Your task to perform on an android device: Do I have any events tomorrow? Image 0: 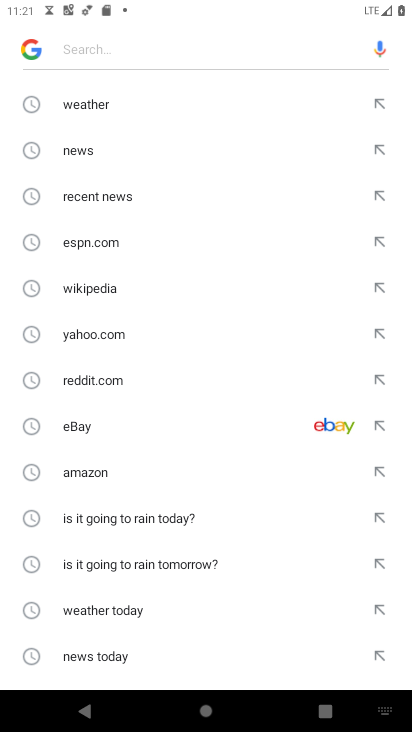
Step 0: press home button
Your task to perform on an android device: Do I have any events tomorrow? Image 1: 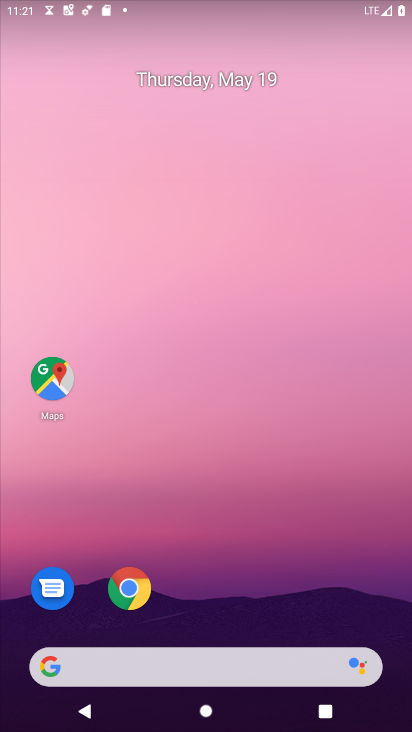
Step 1: drag from (275, 574) to (153, 26)
Your task to perform on an android device: Do I have any events tomorrow? Image 2: 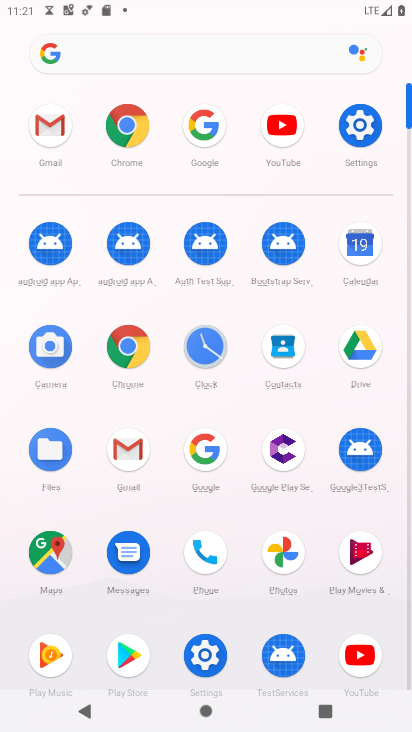
Step 2: click (354, 253)
Your task to perform on an android device: Do I have any events tomorrow? Image 3: 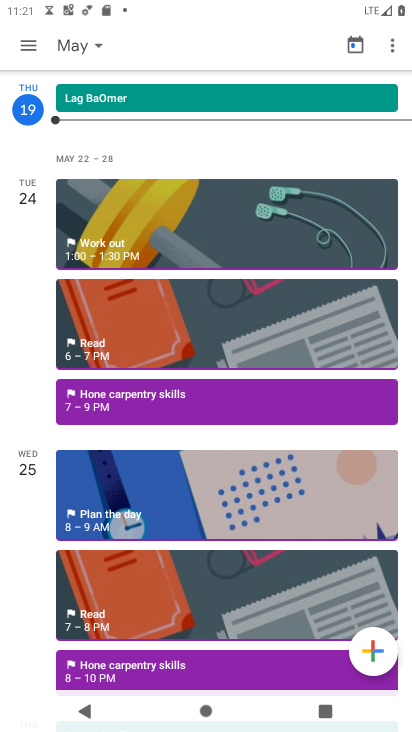
Step 3: click (25, 47)
Your task to perform on an android device: Do I have any events tomorrow? Image 4: 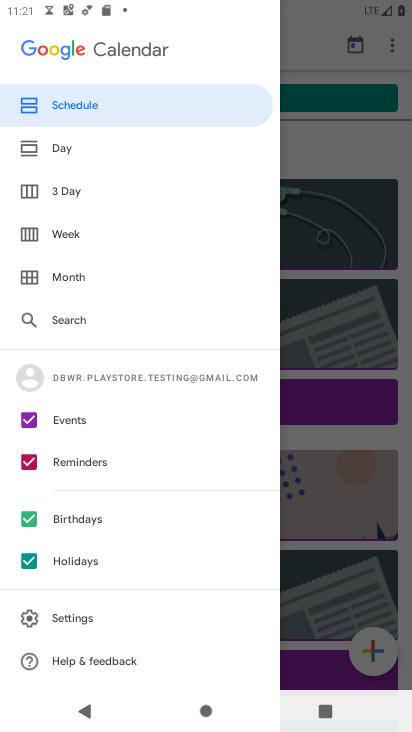
Step 4: click (69, 233)
Your task to perform on an android device: Do I have any events tomorrow? Image 5: 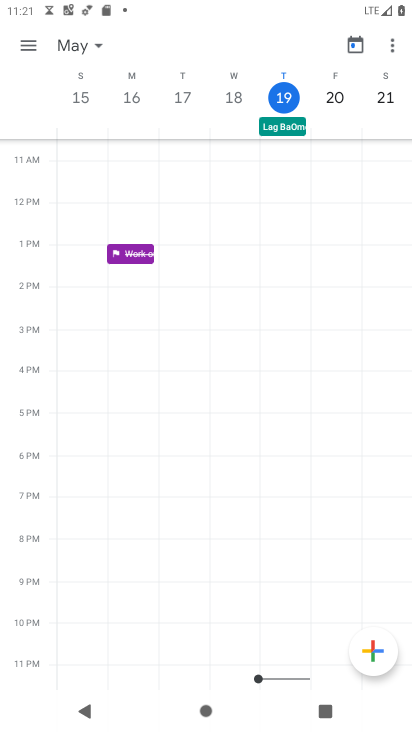
Step 5: task complete